Your task to perform on an android device: Open CNN.com Image 0: 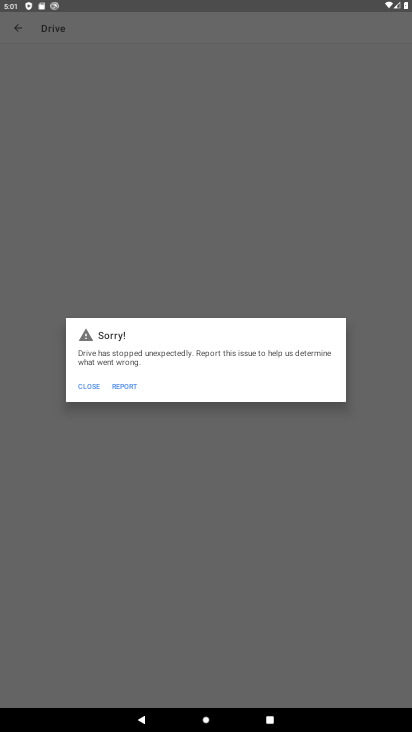
Step 0: press home button
Your task to perform on an android device: Open CNN.com Image 1: 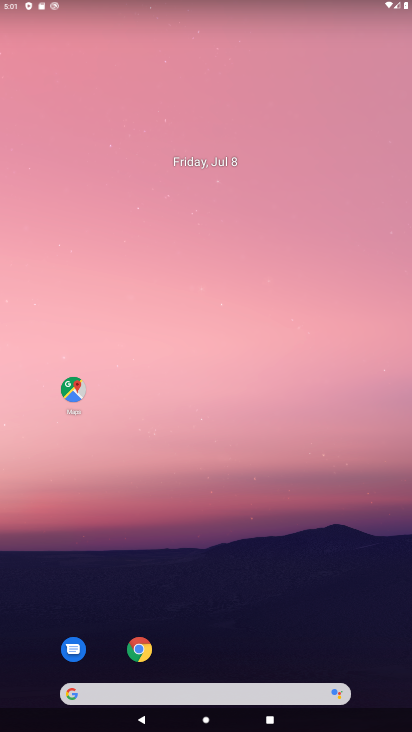
Step 1: drag from (306, 580) to (215, 45)
Your task to perform on an android device: Open CNN.com Image 2: 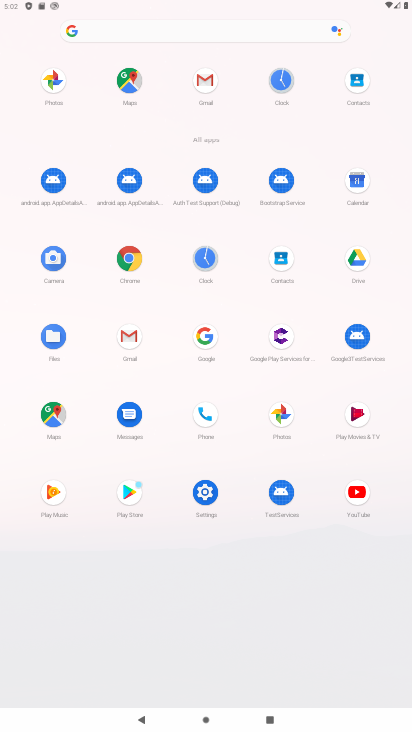
Step 2: click (133, 254)
Your task to perform on an android device: Open CNN.com Image 3: 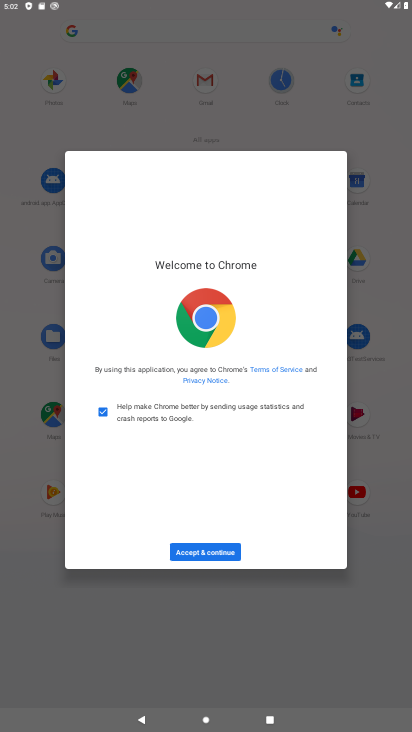
Step 3: click (218, 548)
Your task to perform on an android device: Open CNN.com Image 4: 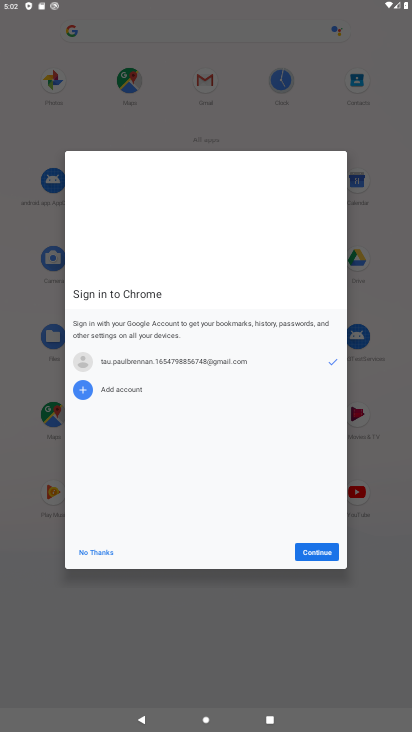
Step 4: click (324, 552)
Your task to perform on an android device: Open CNN.com Image 5: 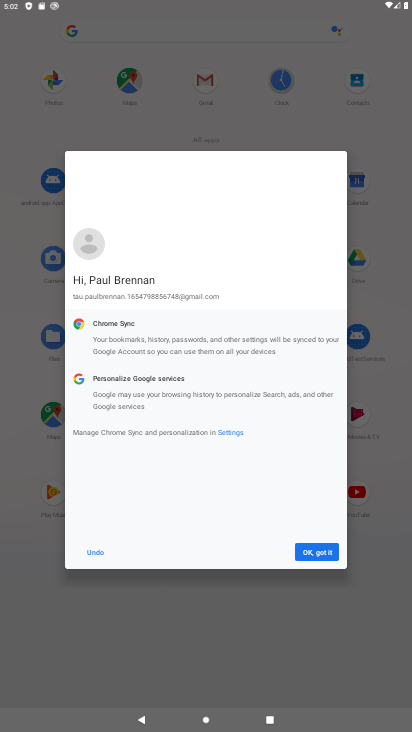
Step 5: click (323, 553)
Your task to perform on an android device: Open CNN.com Image 6: 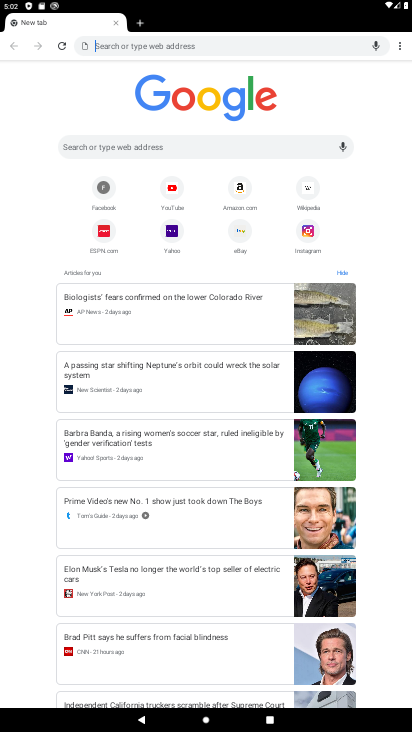
Step 6: click (154, 41)
Your task to perform on an android device: Open CNN.com Image 7: 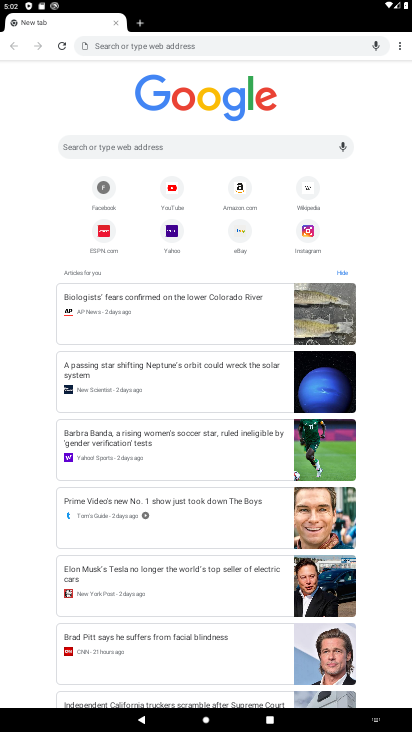
Step 7: type "cnn.com"
Your task to perform on an android device: Open CNN.com Image 8: 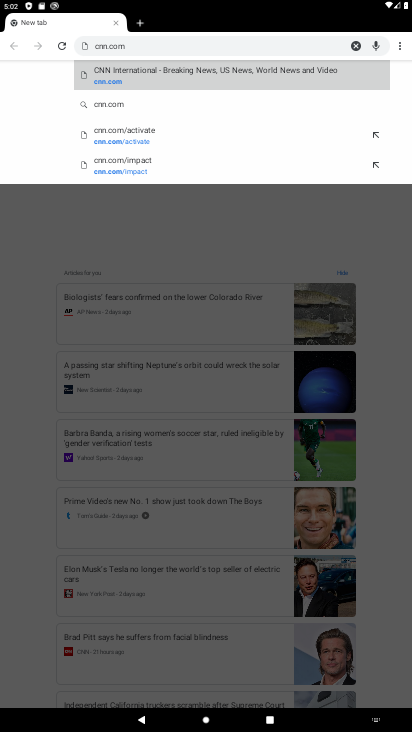
Step 8: click (113, 78)
Your task to perform on an android device: Open CNN.com Image 9: 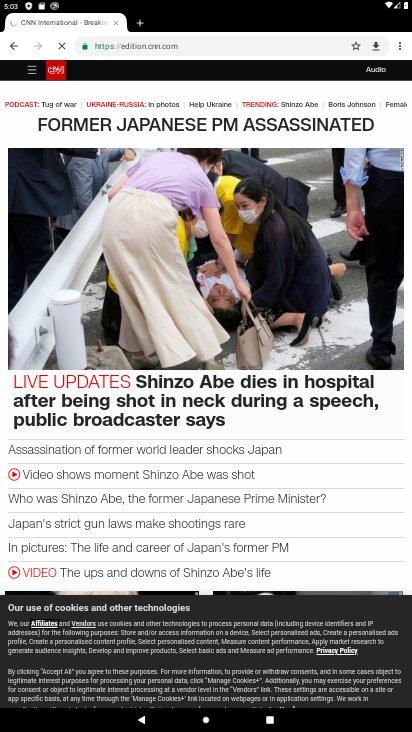
Step 9: task complete